Your task to perform on an android device: open app "Walmart Shopping & Grocery" (install if not already installed), go to login, and select forgot password Image 0: 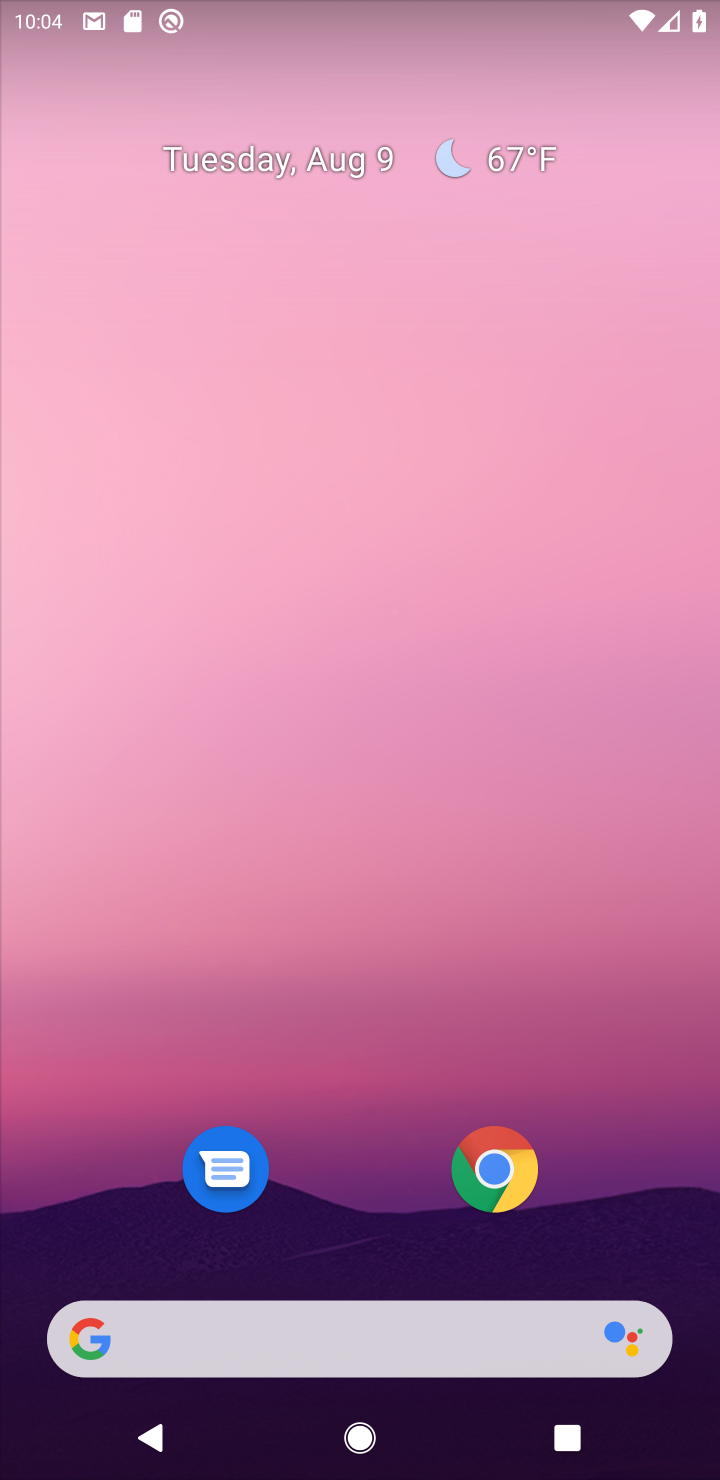
Step 0: drag from (621, 1141) to (618, 125)
Your task to perform on an android device: open app "Walmart Shopping & Grocery" (install if not already installed), go to login, and select forgot password Image 1: 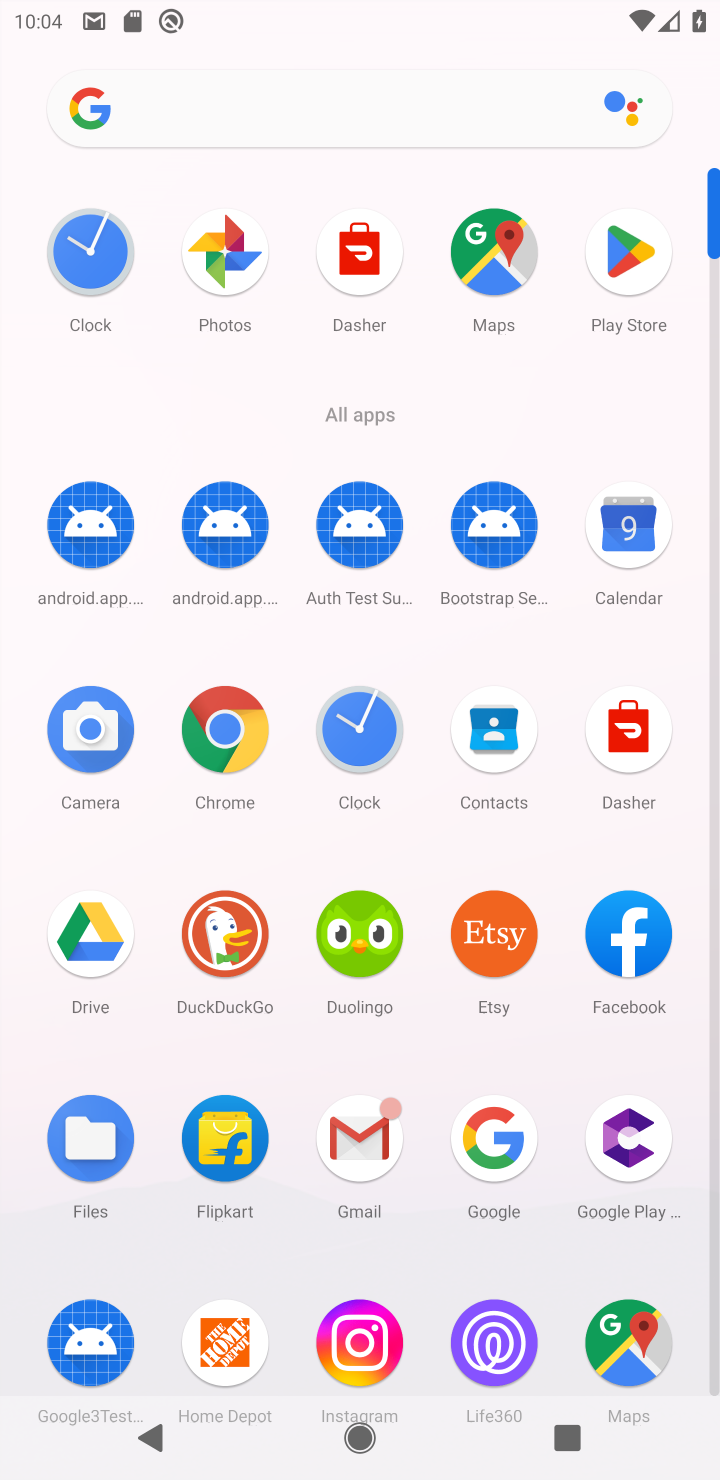
Step 1: click (630, 245)
Your task to perform on an android device: open app "Walmart Shopping & Grocery" (install if not already installed), go to login, and select forgot password Image 2: 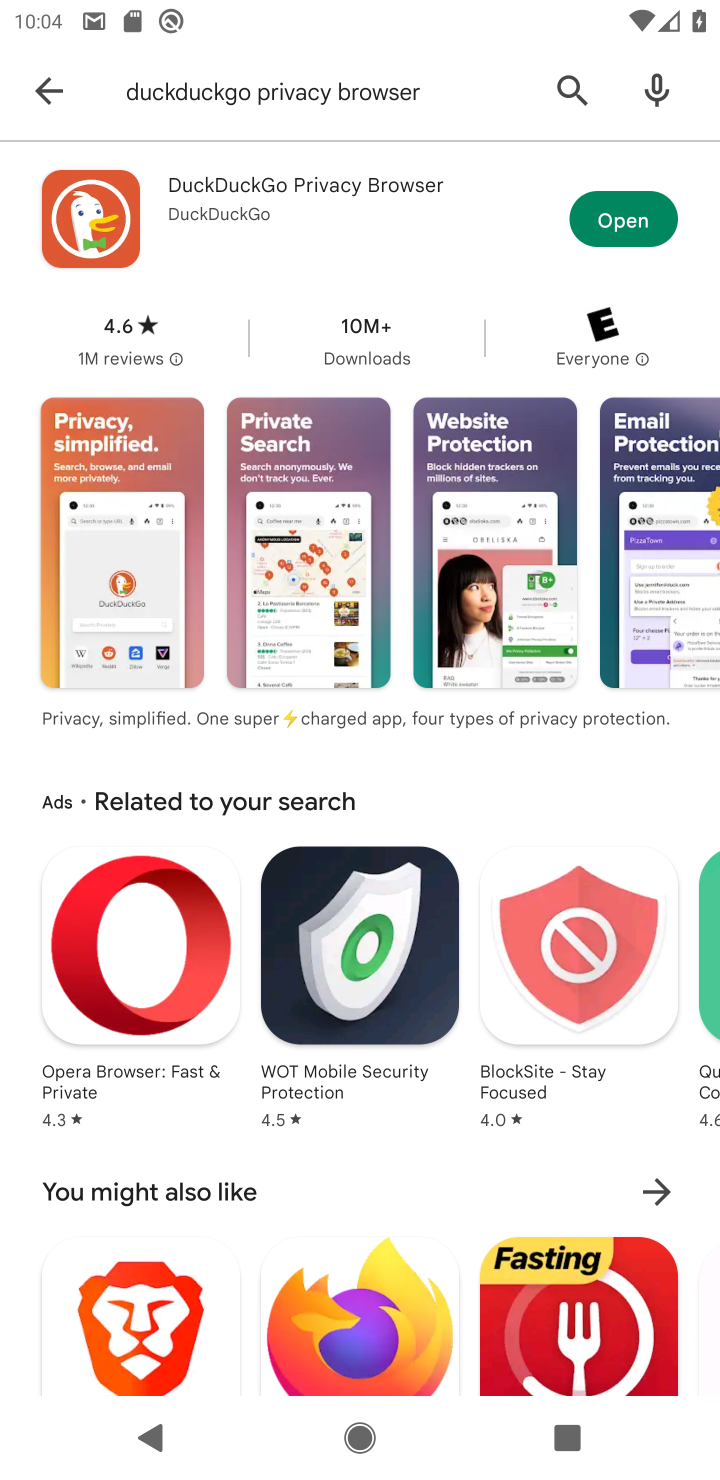
Step 2: click (569, 83)
Your task to perform on an android device: open app "Walmart Shopping & Grocery" (install if not already installed), go to login, and select forgot password Image 3: 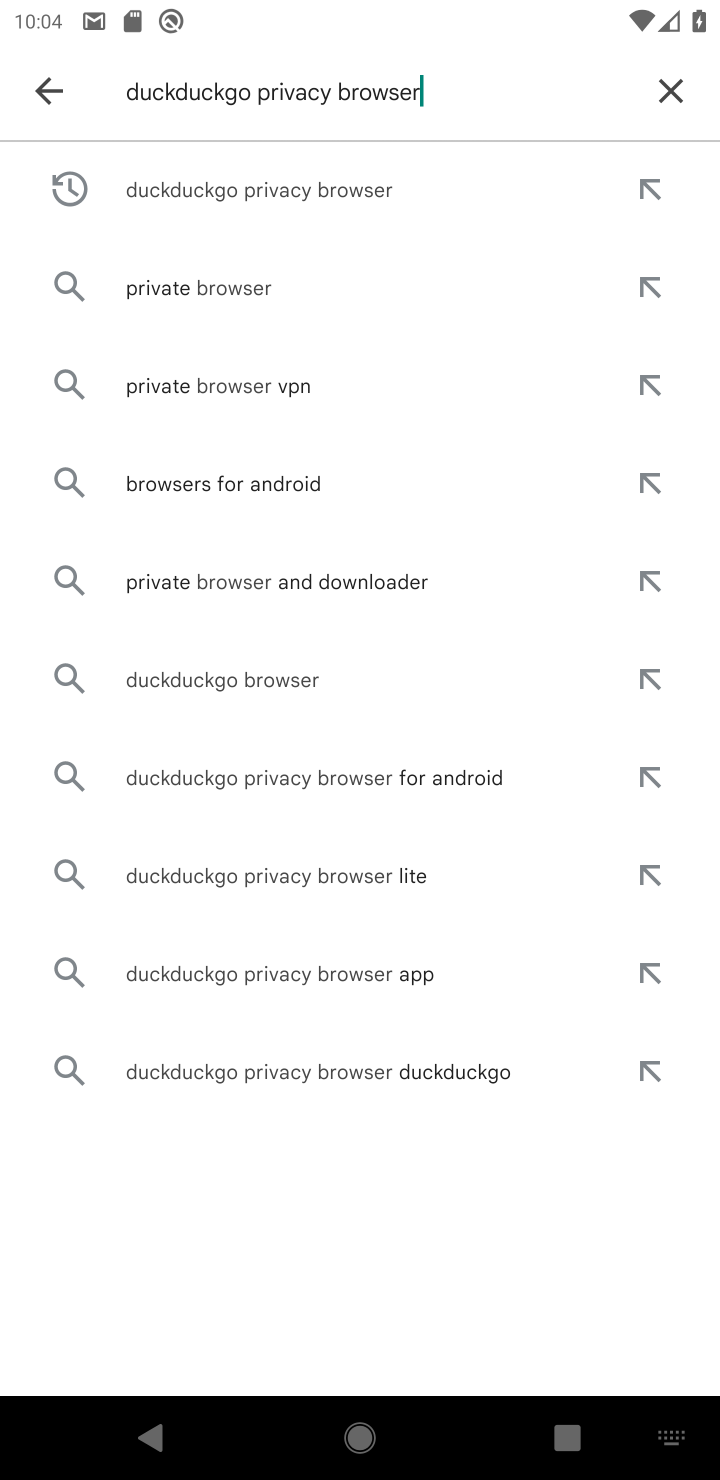
Step 3: click (653, 74)
Your task to perform on an android device: open app "Walmart Shopping & Grocery" (install if not already installed), go to login, and select forgot password Image 4: 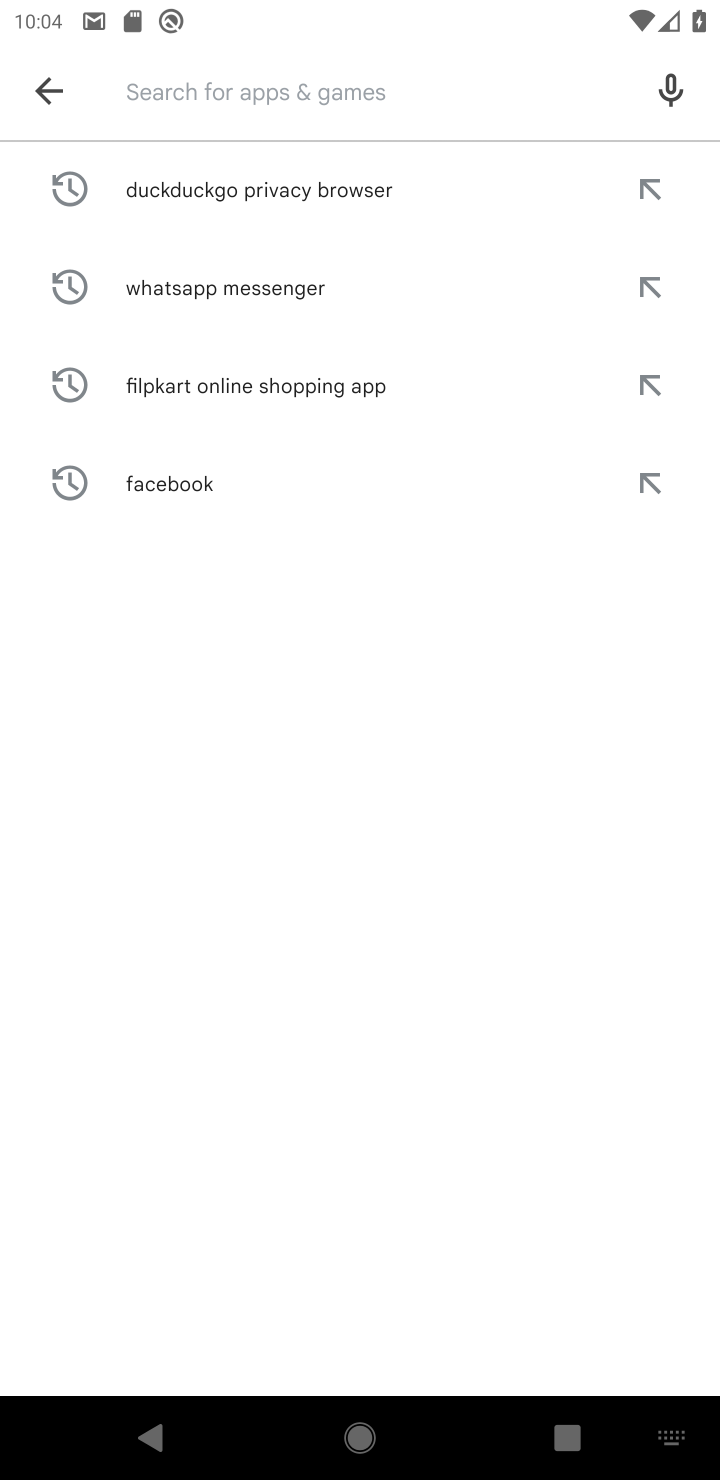
Step 4: type "Walmart Shopping & Grocery"
Your task to perform on an android device: open app "Walmart Shopping & Grocery" (install if not already installed), go to login, and select forgot password Image 5: 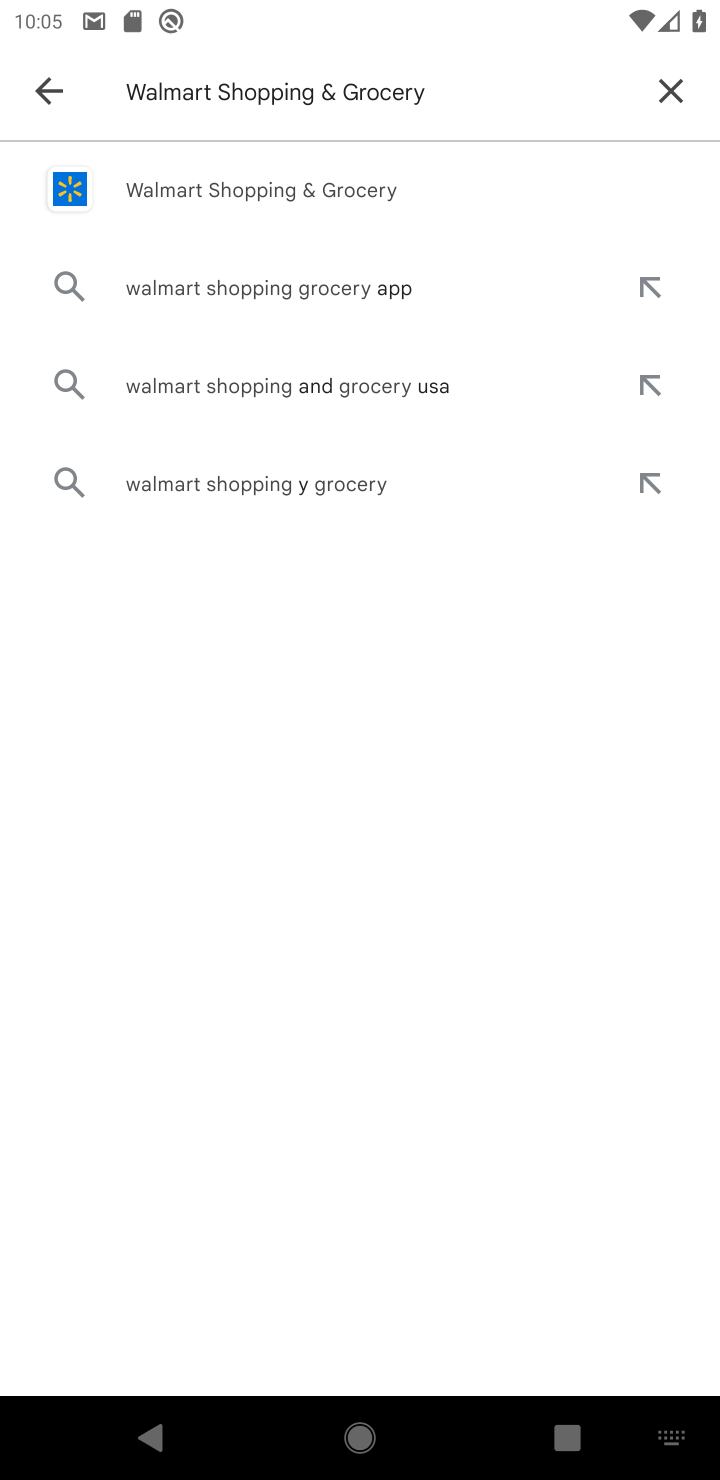
Step 5: click (353, 194)
Your task to perform on an android device: open app "Walmart Shopping & Grocery" (install if not already installed), go to login, and select forgot password Image 6: 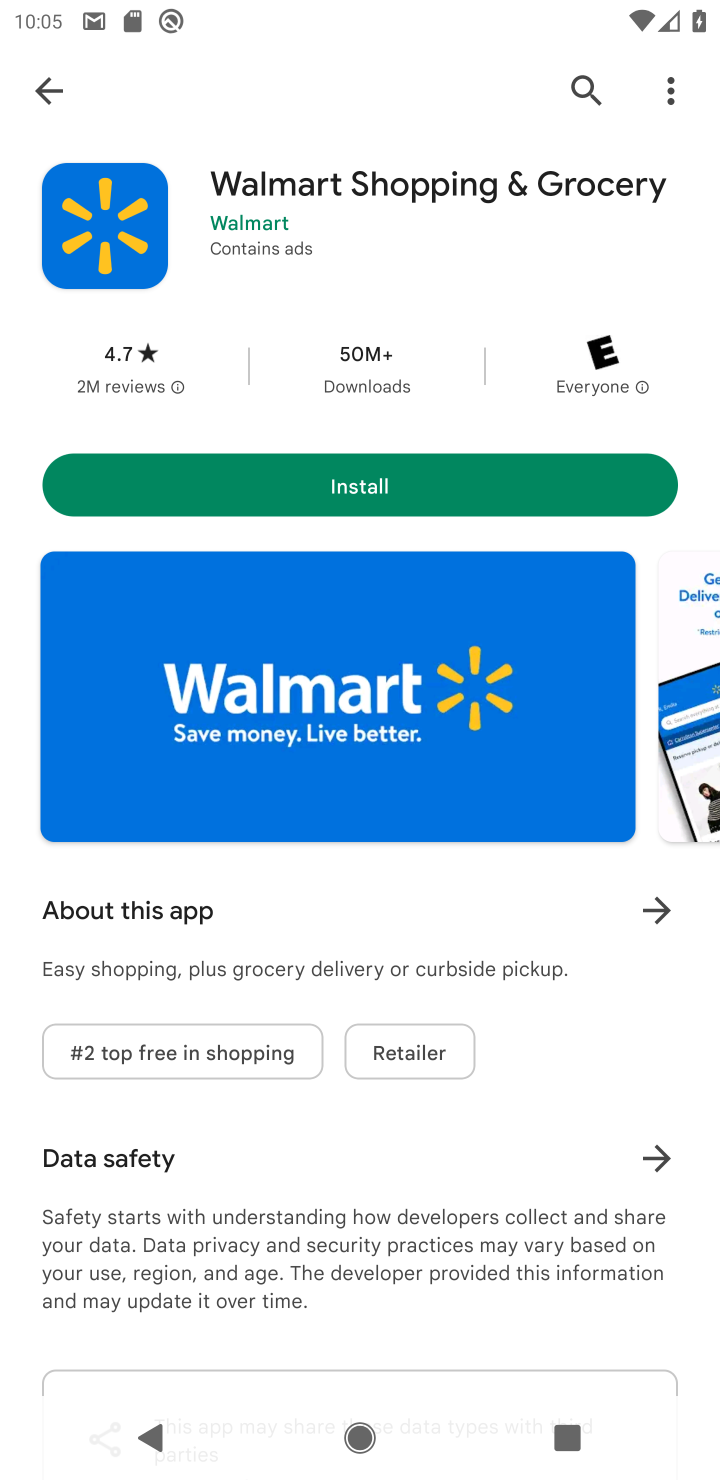
Step 6: click (378, 479)
Your task to perform on an android device: open app "Walmart Shopping & Grocery" (install if not already installed), go to login, and select forgot password Image 7: 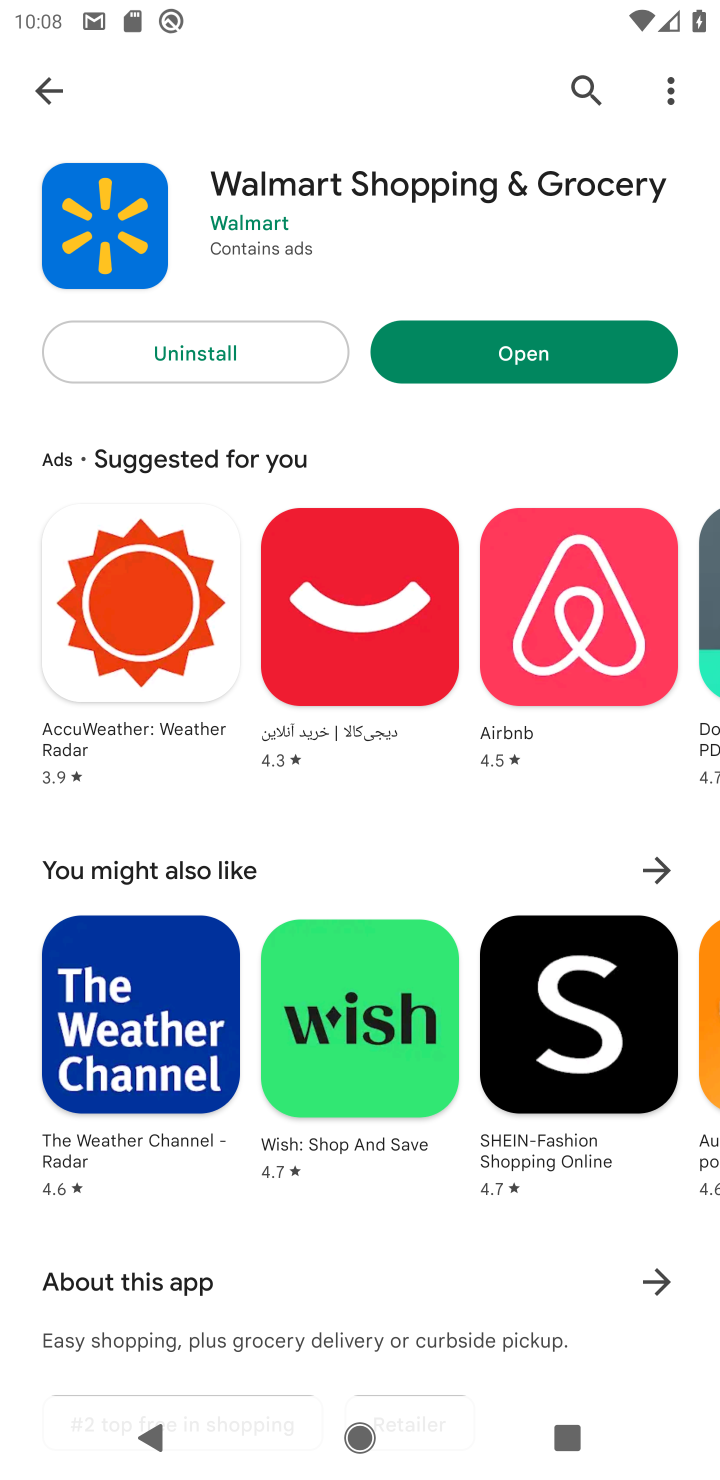
Step 7: click (540, 363)
Your task to perform on an android device: open app "Walmart Shopping & Grocery" (install if not already installed), go to login, and select forgot password Image 8: 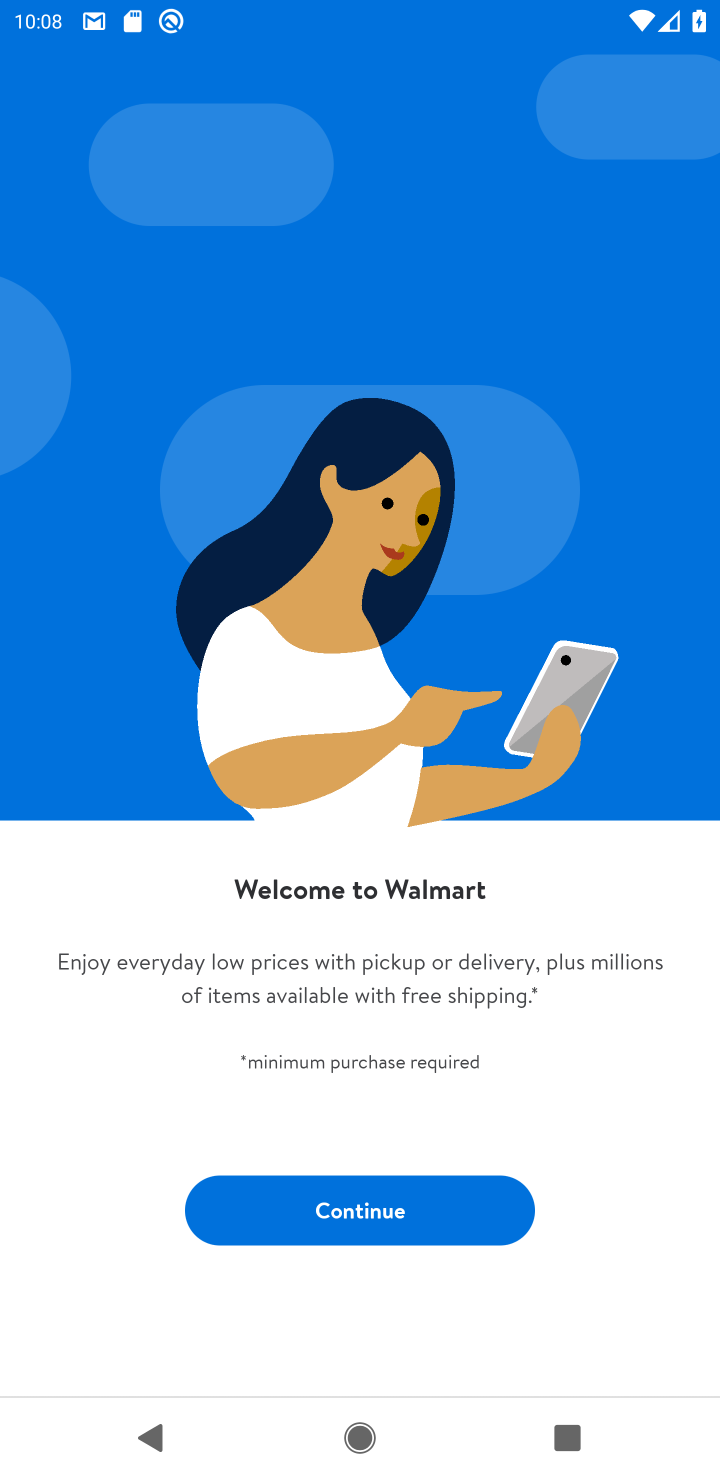
Step 8: click (303, 1201)
Your task to perform on an android device: open app "Walmart Shopping & Grocery" (install if not already installed), go to login, and select forgot password Image 9: 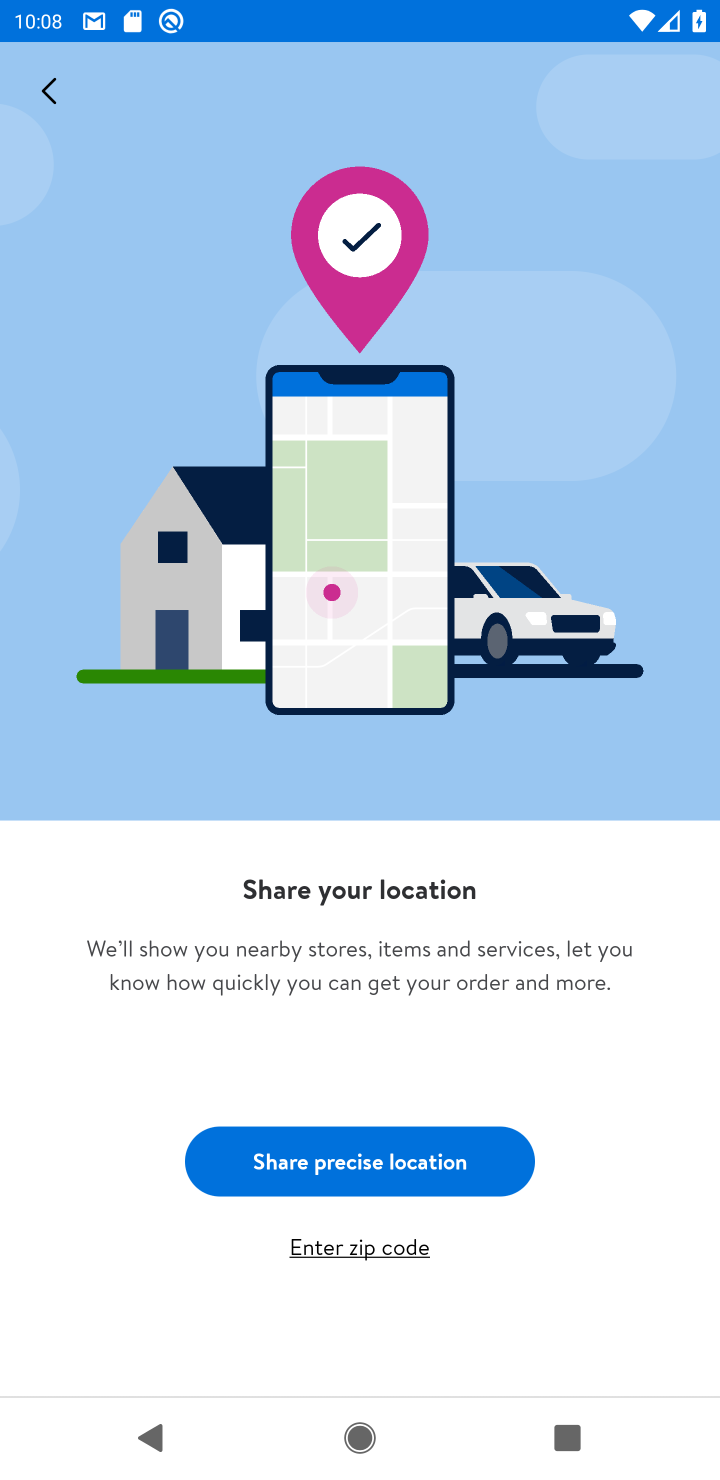
Step 9: click (420, 1161)
Your task to perform on an android device: open app "Walmart Shopping & Grocery" (install if not already installed), go to login, and select forgot password Image 10: 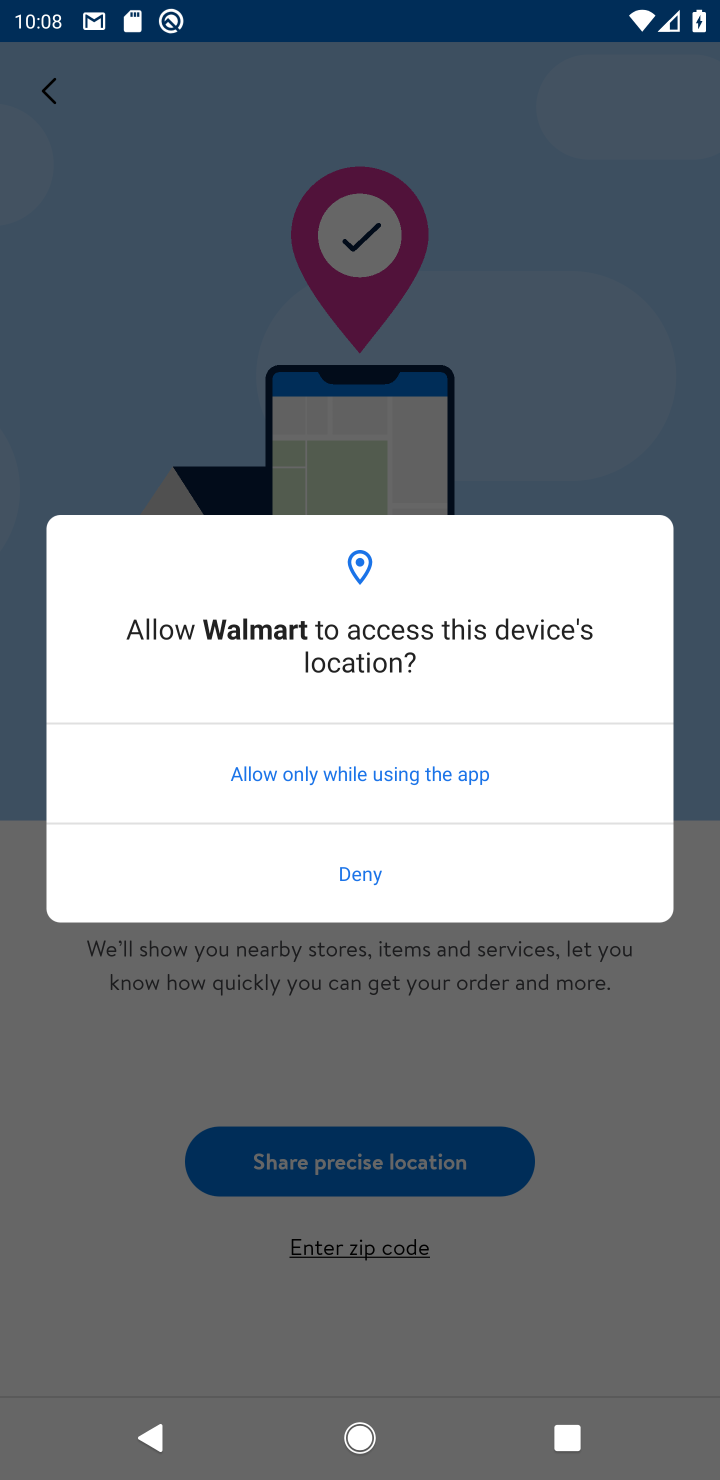
Step 10: click (395, 868)
Your task to perform on an android device: open app "Walmart Shopping & Grocery" (install if not already installed), go to login, and select forgot password Image 11: 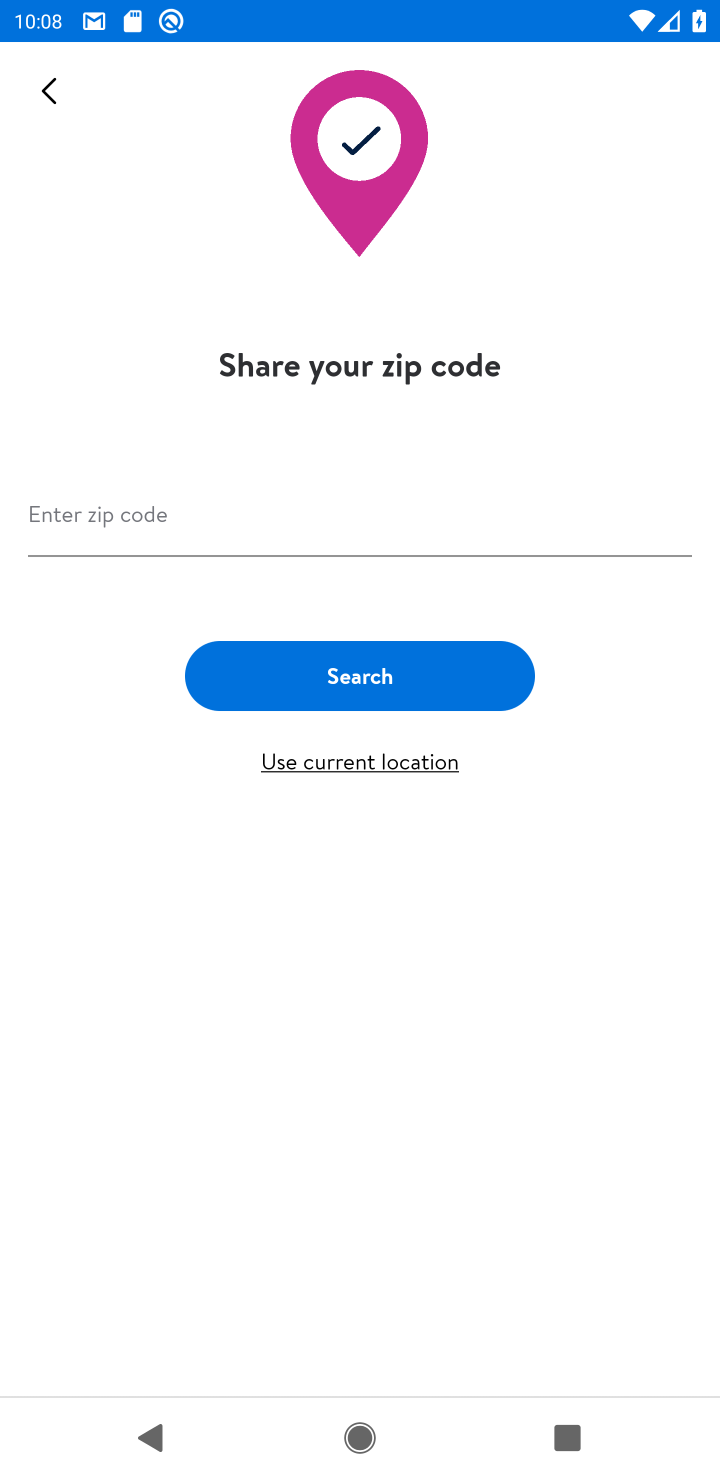
Step 11: task complete